Your task to perform on an android device: open the mobile data screen to see how much data has been used Image 0: 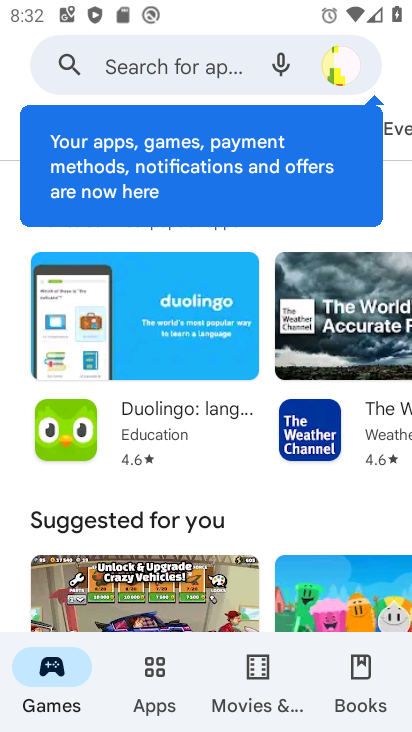
Step 0: press home button
Your task to perform on an android device: open the mobile data screen to see how much data has been used Image 1: 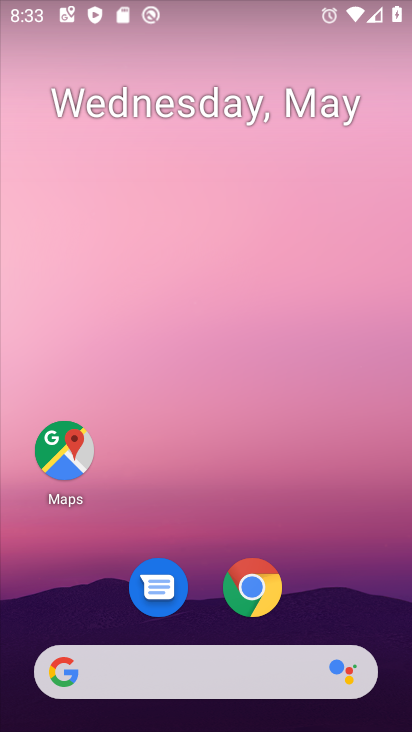
Step 1: drag from (208, 573) to (258, 110)
Your task to perform on an android device: open the mobile data screen to see how much data has been used Image 2: 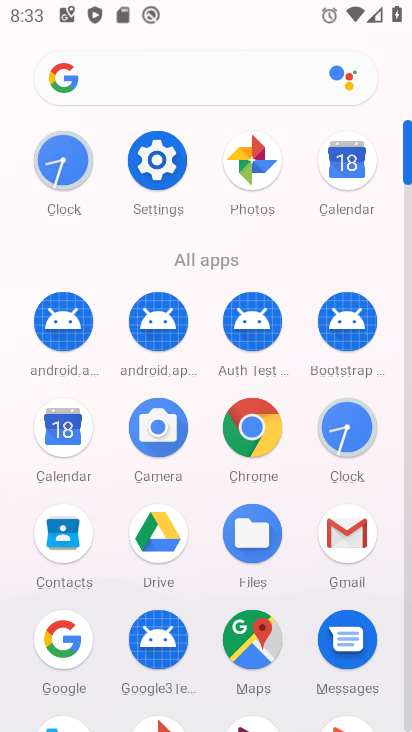
Step 2: click (151, 183)
Your task to perform on an android device: open the mobile data screen to see how much data has been used Image 3: 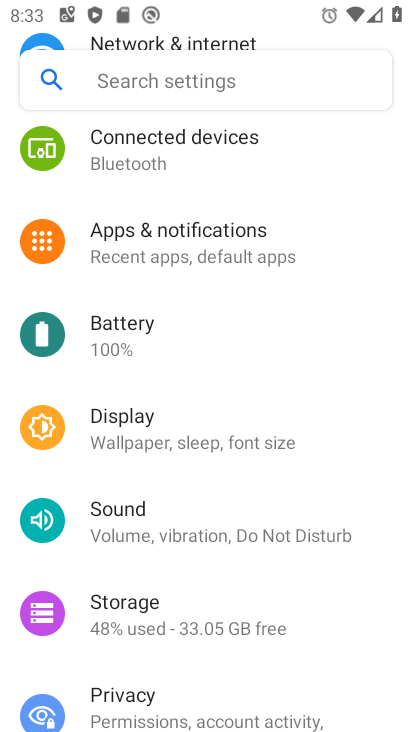
Step 3: drag from (164, 171) to (146, 413)
Your task to perform on an android device: open the mobile data screen to see how much data has been used Image 4: 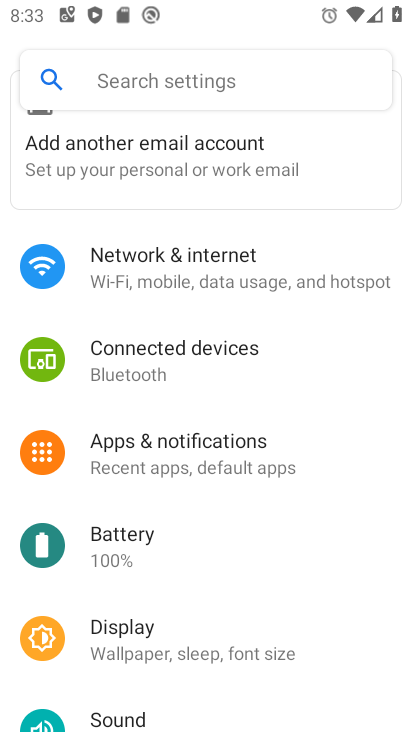
Step 4: click (149, 285)
Your task to perform on an android device: open the mobile data screen to see how much data has been used Image 5: 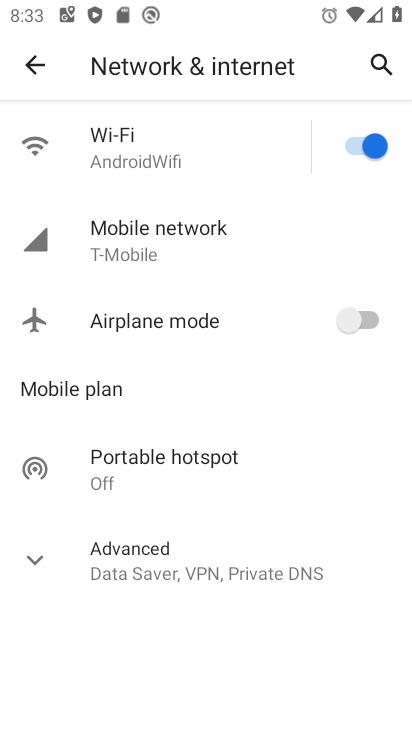
Step 5: click (159, 248)
Your task to perform on an android device: open the mobile data screen to see how much data has been used Image 6: 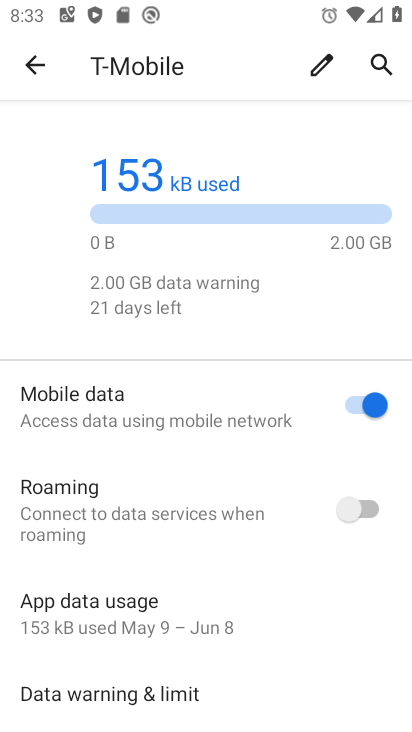
Step 6: click (128, 627)
Your task to perform on an android device: open the mobile data screen to see how much data has been used Image 7: 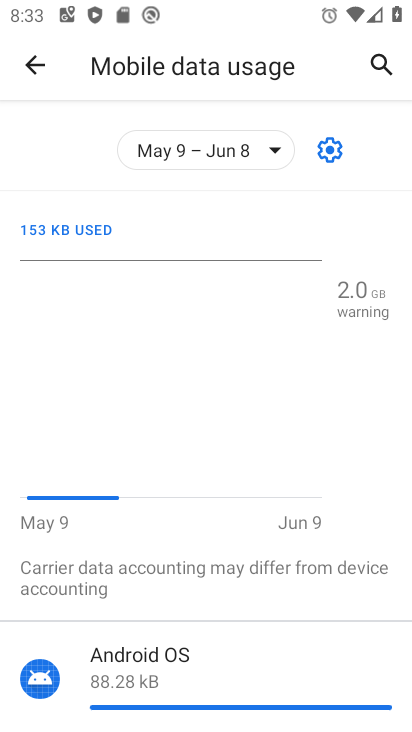
Step 7: task complete